Your task to perform on an android device: Show me the alarms in the clock app Image 0: 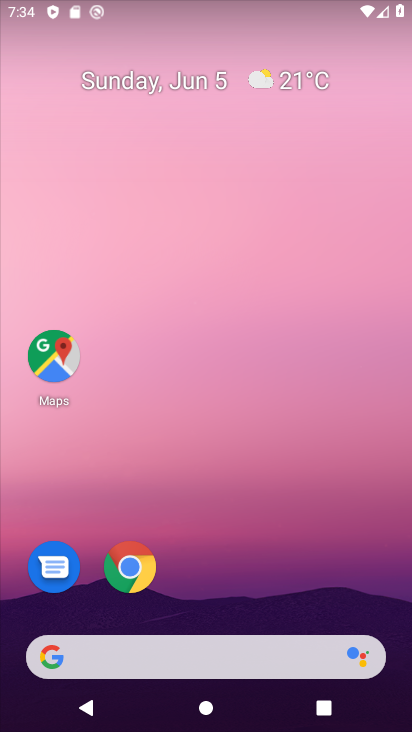
Step 0: drag from (225, 636) to (207, 388)
Your task to perform on an android device: Show me the alarms in the clock app Image 1: 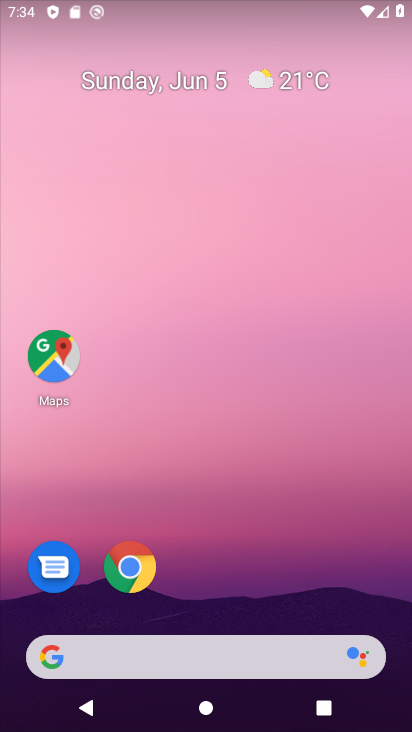
Step 1: drag from (208, 613) to (258, 224)
Your task to perform on an android device: Show me the alarms in the clock app Image 2: 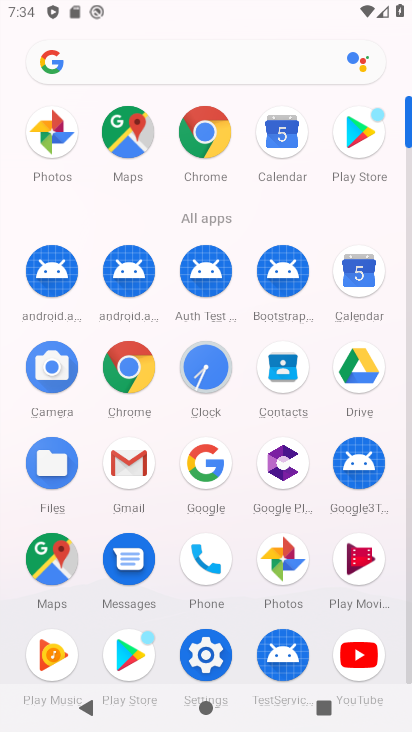
Step 2: click (197, 377)
Your task to perform on an android device: Show me the alarms in the clock app Image 3: 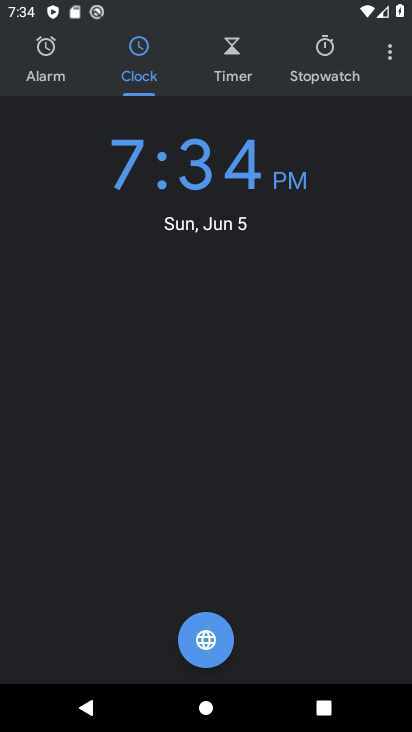
Step 3: click (53, 63)
Your task to perform on an android device: Show me the alarms in the clock app Image 4: 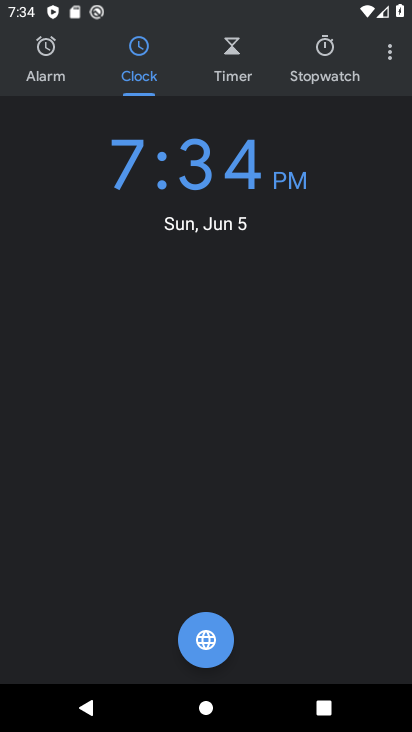
Step 4: click (41, 61)
Your task to perform on an android device: Show me the alarms in the clock app Image 5: 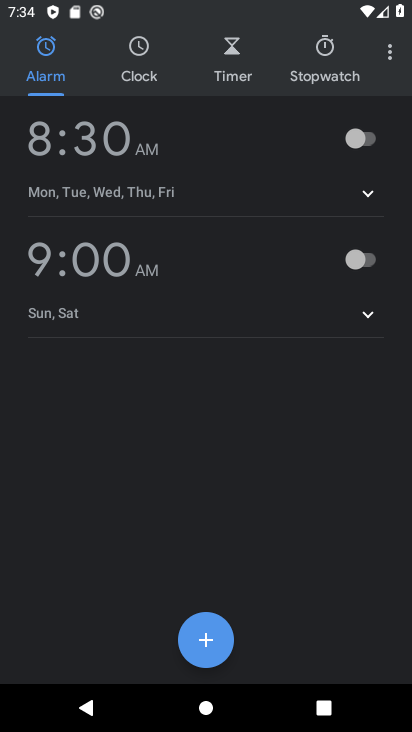
Step 5: task complete